Your task to perform on an android device: toggle improve location accuracy Image 0: 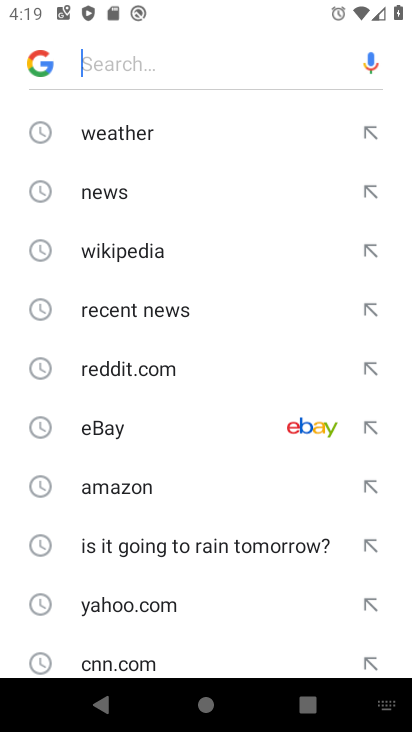
Step 0: press home button
Your task to perform on an android device: toggle improve location accuracy Image 1: 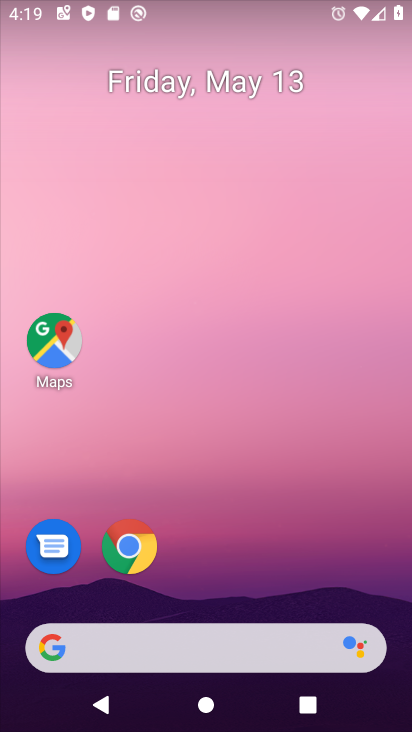
Step 1: drag from (192, 602) to (167, 2)
Your task to perform on an android device: toggle improve location accuracy Image 2: 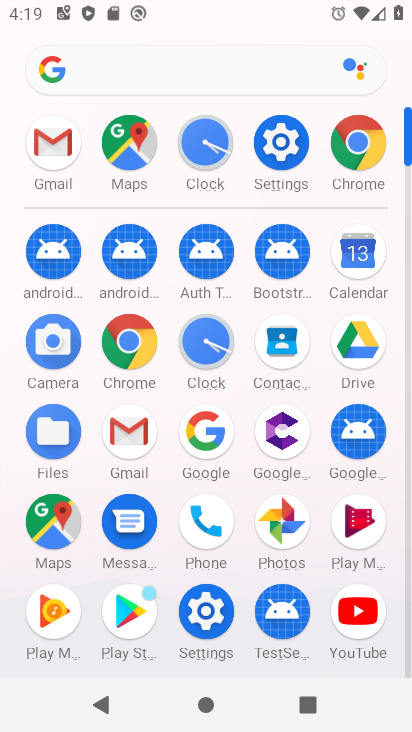
Step 2: click (294, 153)
Your task to perform on an android device: toggle improve location accuracy Image 3: 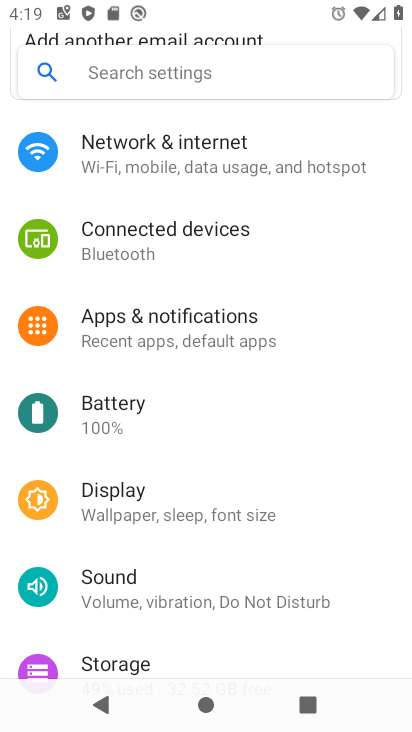
Step 3: drag from (177, 609) to (247, 74)
Your task to perform on an android device: toggle improve location accuracy Image 4: 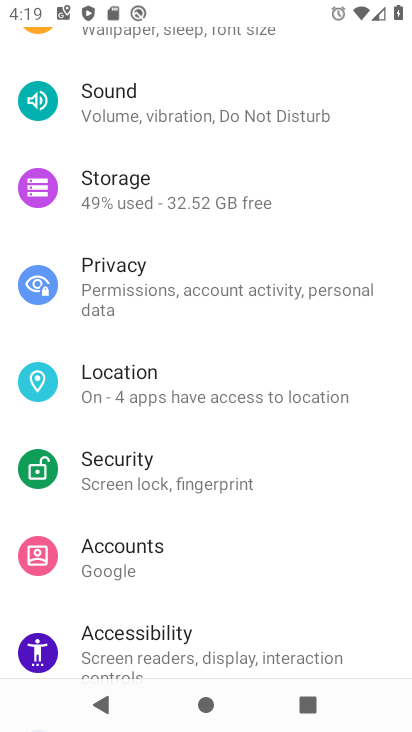
Step 4: click (157, 382)
Your task to perform on an android device: toggle improve location accuracy Image 5: 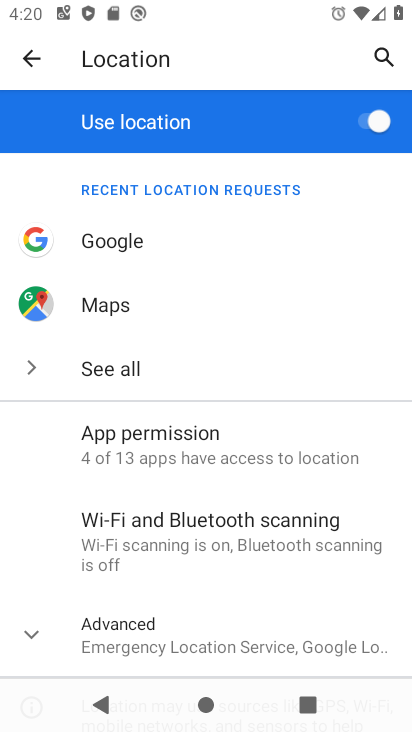
Step 5: click (141, 633)
Your task to perform on an android device: toggle improve location accuracy Image 6: 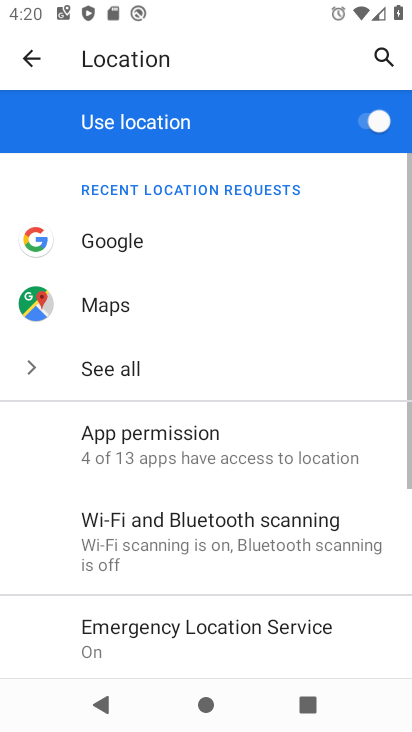
Step 6: drag from (158, 609) to (201, 324)
Your task to perform on an android device: toggle improve location accuracy Image 7: 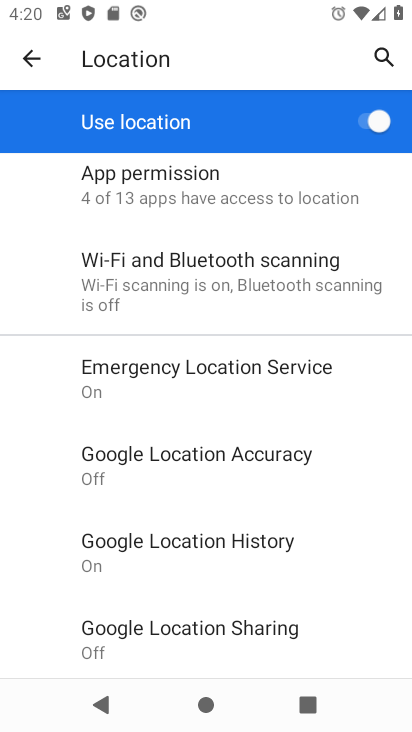
Step 7: click (163, 553)
Your task to perform on an android device: toggle improve location accuracy Image 8: 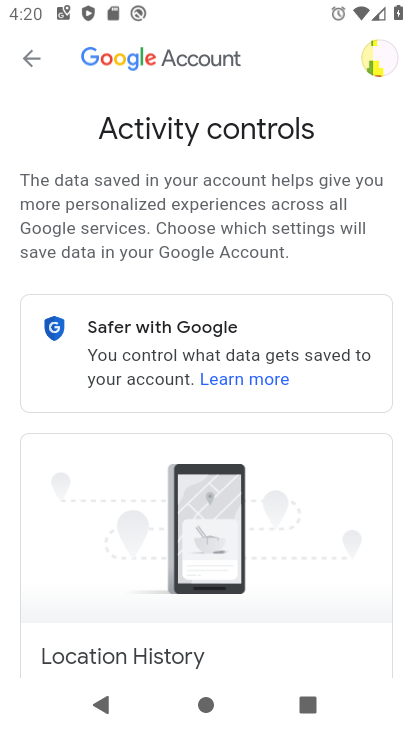
Step 8: drag from (294, 523) to (317, 50)
Your task to perform on an android device: toggle improve location accuracy Image 9: 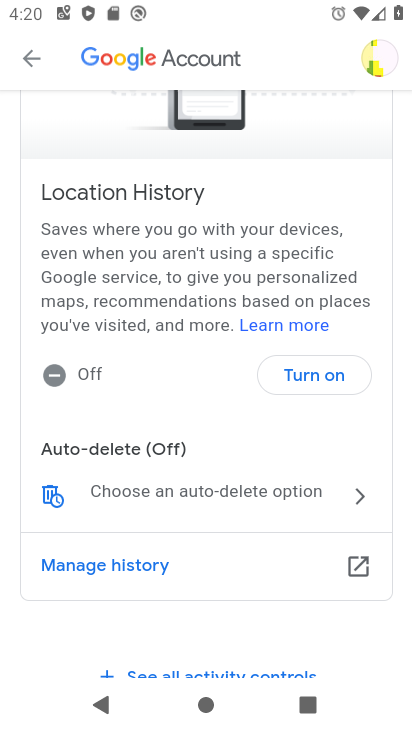
Step 9: click (22, 56)
Your task to perform on an android device: toggle improve location accuracy Image 10: 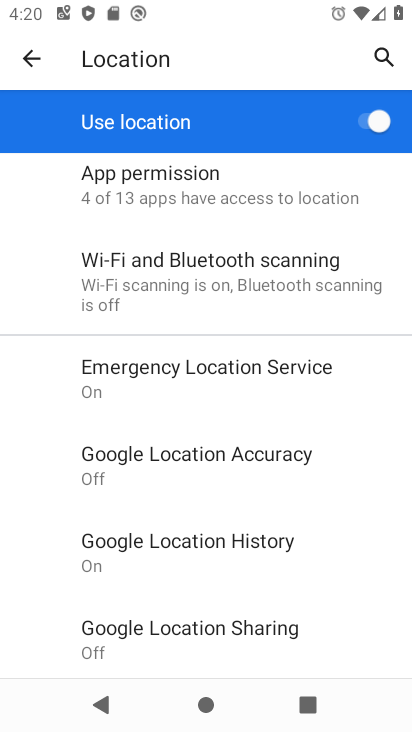
Step 10: click (228, 467)
Your task to perform on an android device: toggle improve location accuracy Image 11: 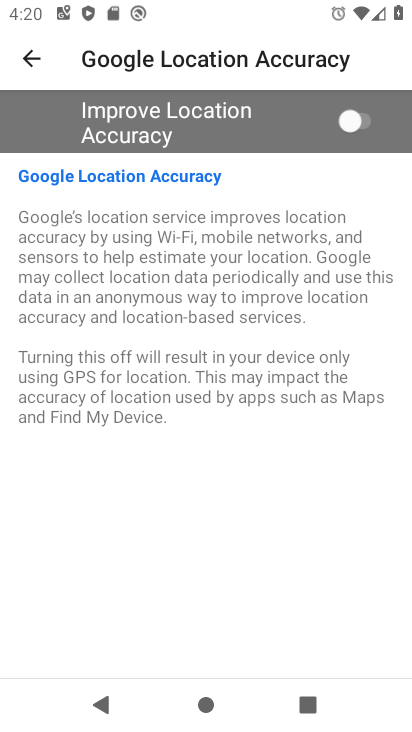
Step 11: click (331, 117)
Your task to perform on an android device: toggle improve location accuracy Image 12: 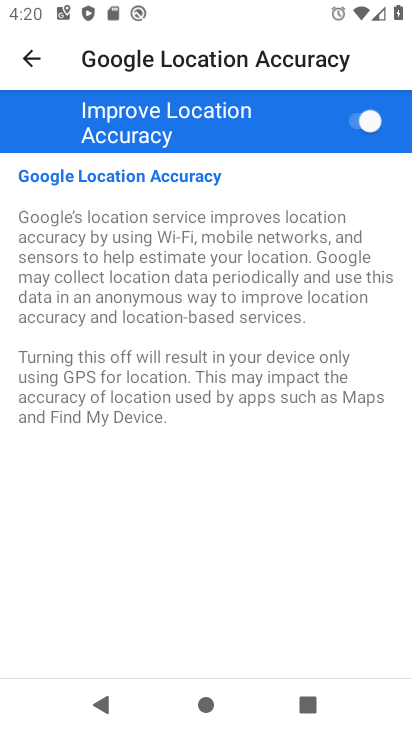
Step 12: task complete